Your task to perform on an android device: Check the weather Image 0: 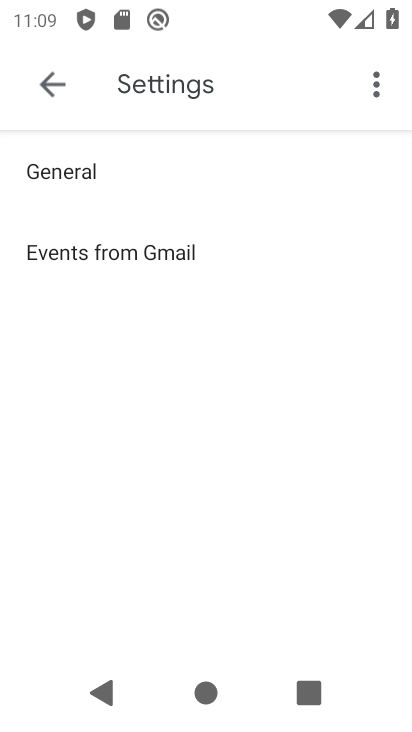
Step 0: press home button
Your task to perform on an android device: Check the weather Image 1: 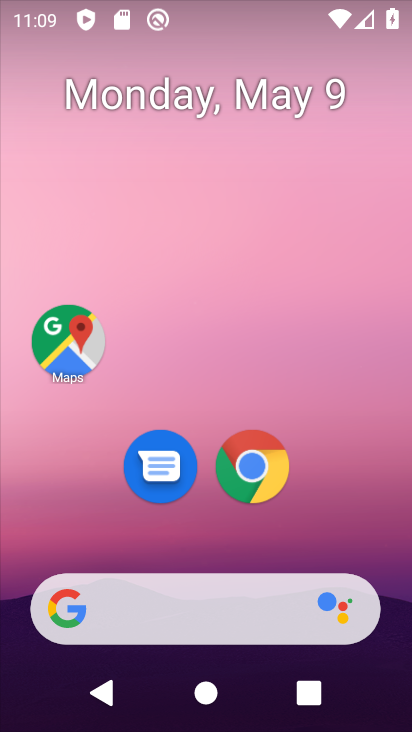
Step 1: drag from (11, 178) to (389, 258)
Your task to perform on an android device: Check the weather Image 2: 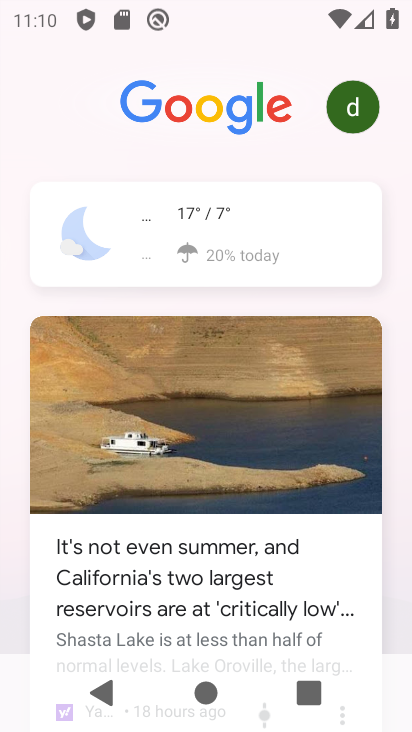
Step 2: click (214, 237)
Your task to perform on an android device: Check the weather Image 3: 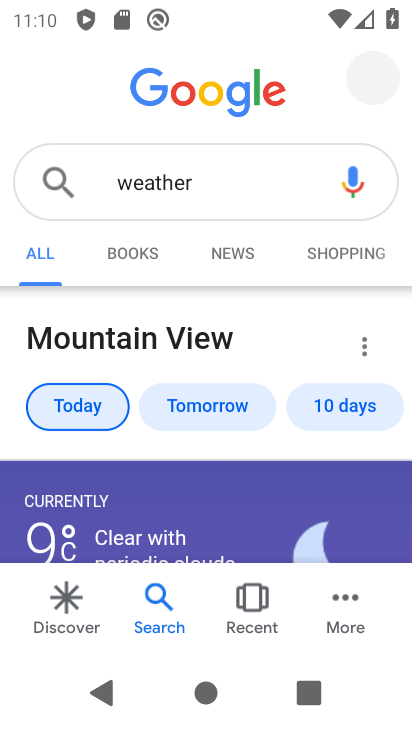
Step 3: task complete